Your task to perform on an android device: Go to notification settings Image 0: 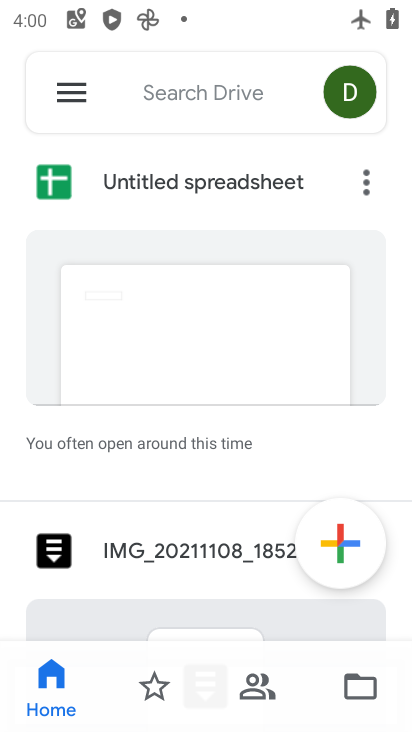
Step 0: press home button
Your task to perform on an android device: Go to notification settings Image 1: 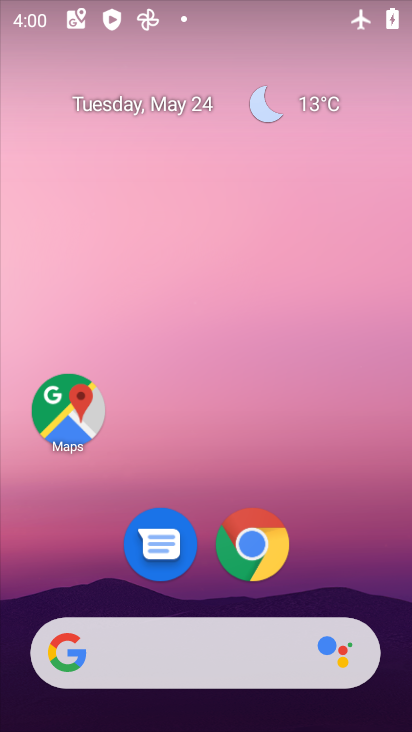
Step 1: drag from (367, 525) to (362, 62)
Your task to perform on an android device: Go to notification settings Image 2: 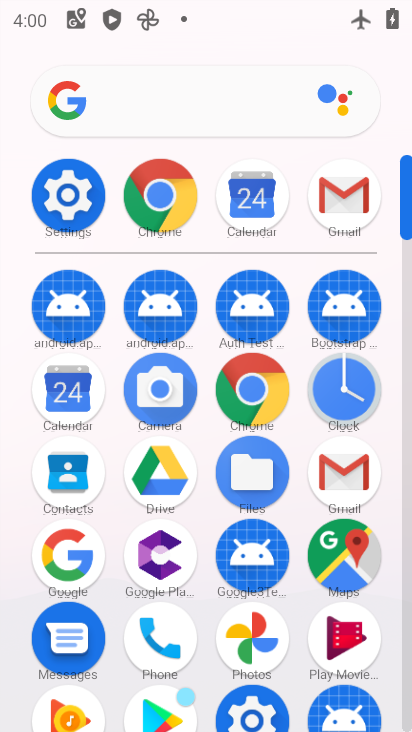
Step 2: click (66, 172)
Your task to perform on an android device: Go to notification settings Image 3: 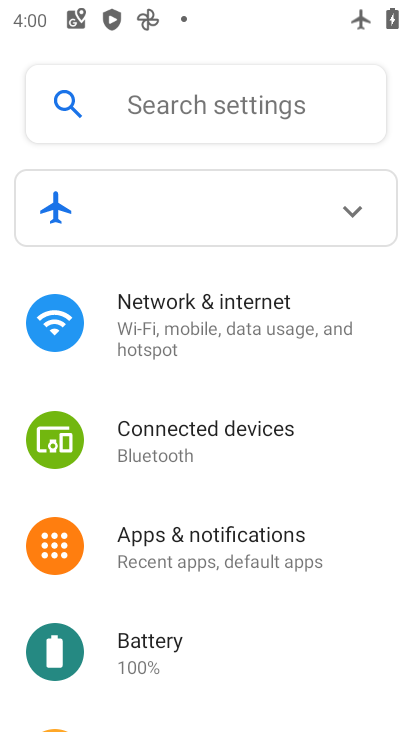
Step 3: click (208, 540)
Your task to perform on an android device: Go to notification settings Image 4: 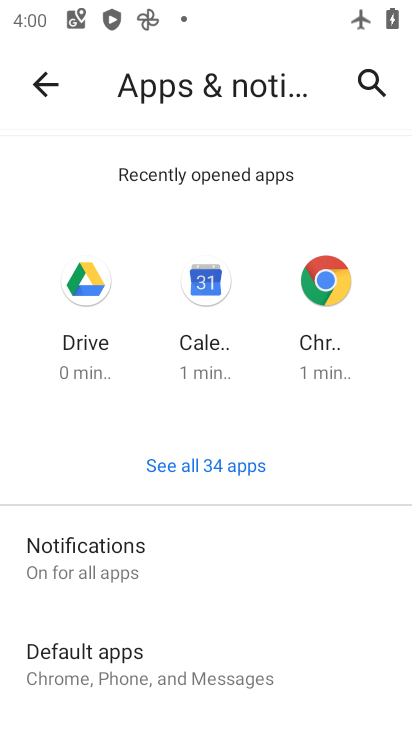
Step 4: click (84, 574)
Your task to perform on an android device: Go to notification settings Image 5: 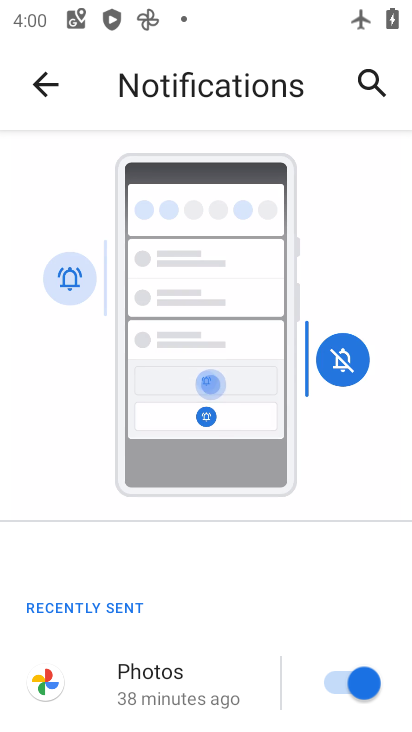
Step 5: drag from (167, 673) to (250, 168)
Your task to perform on an android device: Go to notification settings Image 6: 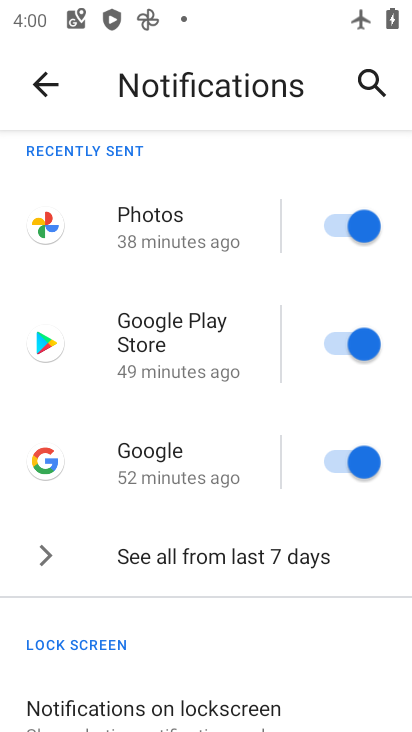
Step 6: drag from (220, 655) to (258, 246)
Your task to perform on an android device: Go to notification settings Image 7: 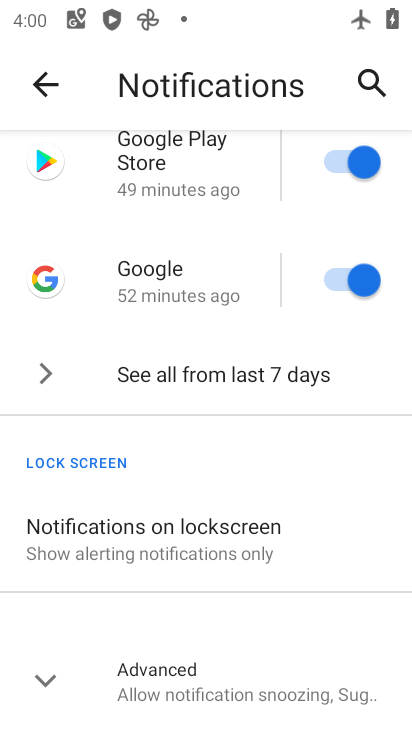
Step 7: click (177, 685)
Your task to perform on an android device: Go to notification settings Image 8: 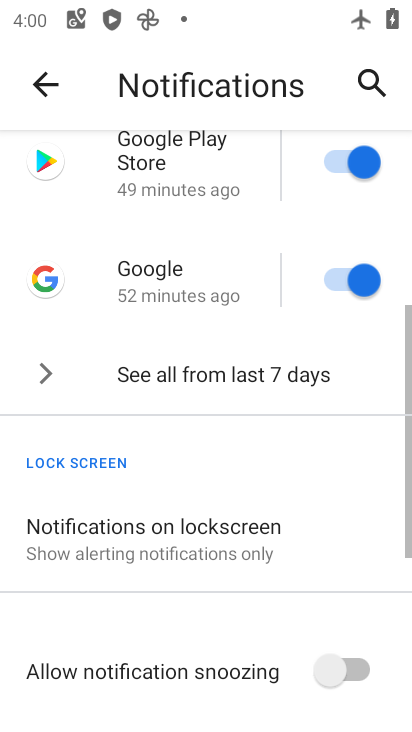
Step 8: task complete